Your task to perform on an android device: turn off translation in the chrome app Image 0: 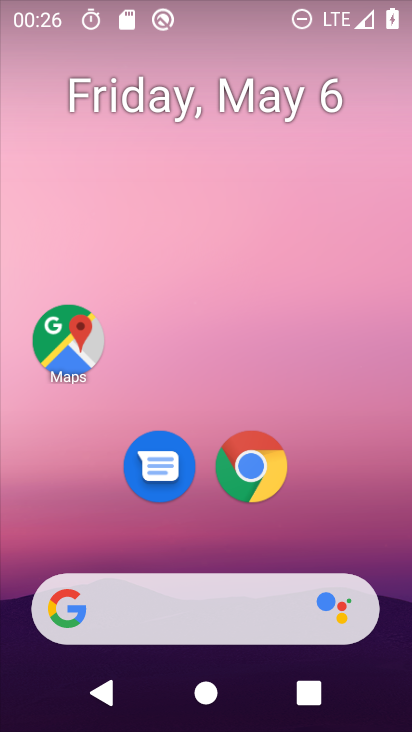
Step 0: click (255, 461)
Your task to perform on an android device: turn off translation in the chrome app Image 1: 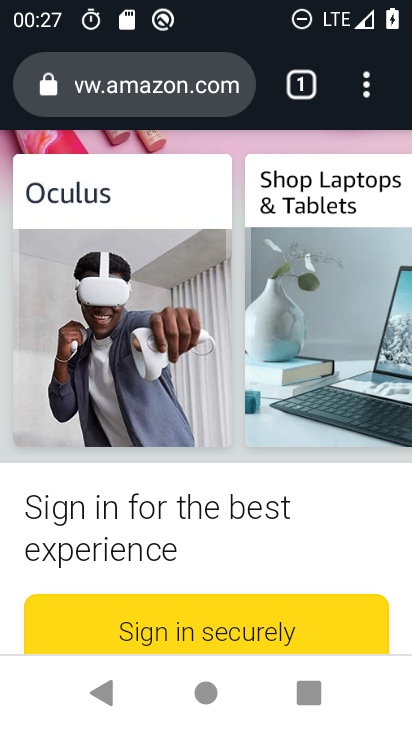
Step 1: click (365, 82)
Your task to perform on an android device: turn off translation in the chrome app Image 2: 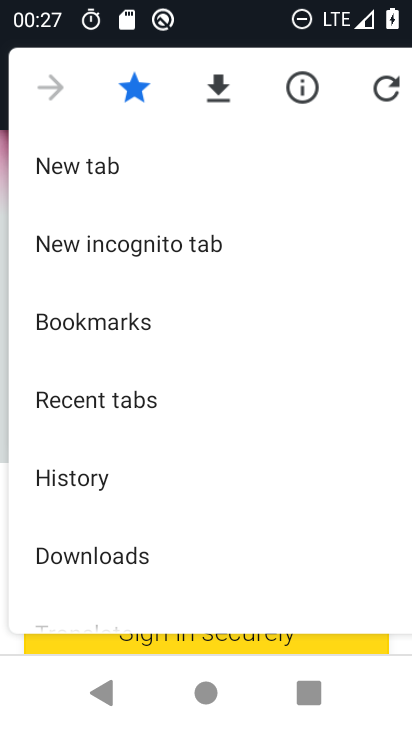
Step 2: drag from (136, 584) to (187, 237)
Your task to perform on an android device: turn off translation in the chrome app Image 3: 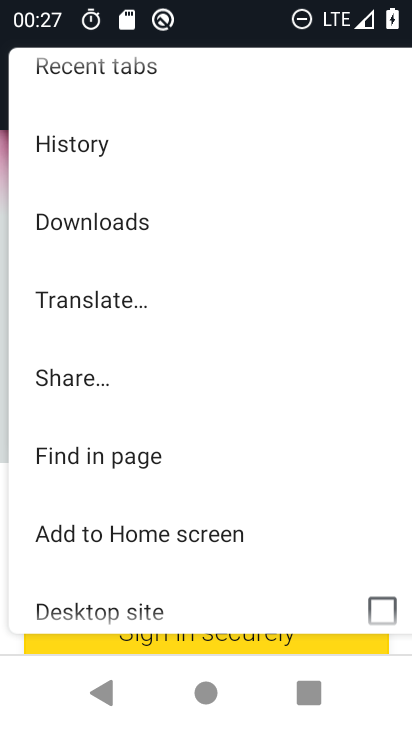
Step 3: drag from (121, 568) to (169, 226)
Your task to perform on an android device: turn off translation in the chrome app Image 4: 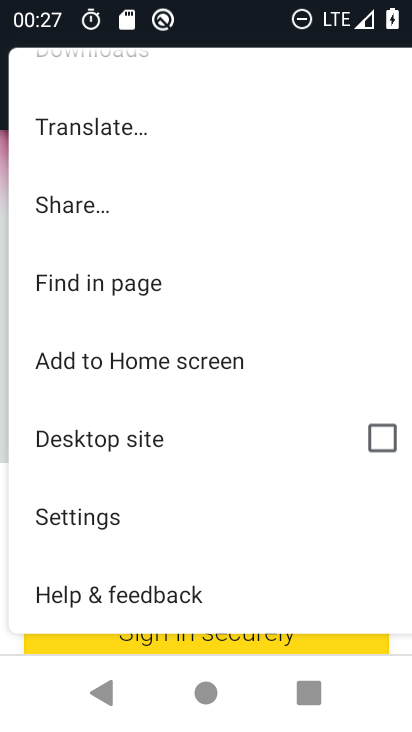
Step 4: click (107, 527)
Your task to perform on an android device: turn off translation in the chrome app Image 5: 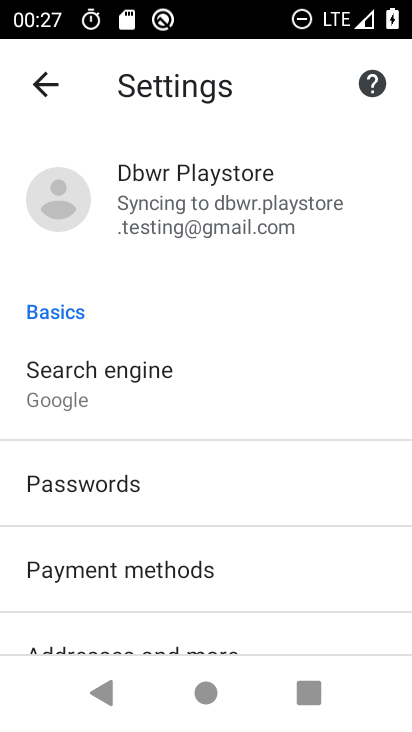
Step 5: drag from (101, 624) to (151, 351)
Your task to perform on an android device: turn off translation in the chrome app Image 6: 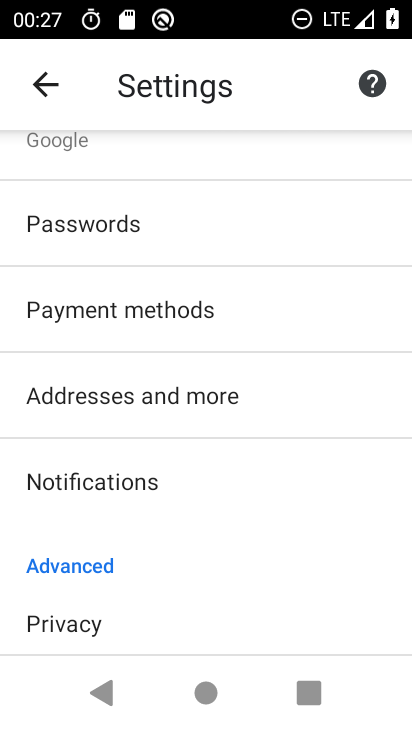
Step 6: drag from (125, 641) to (145, 340)
Your task to perform on an android device: turn off translation in the chrome app Image 7: 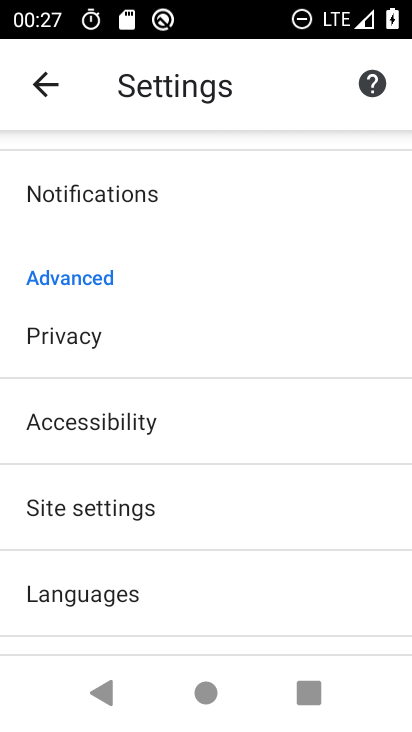
Step 7: click (107, 596)
Your task to perform on an android device: turn off translation in the chrome app Image 8: 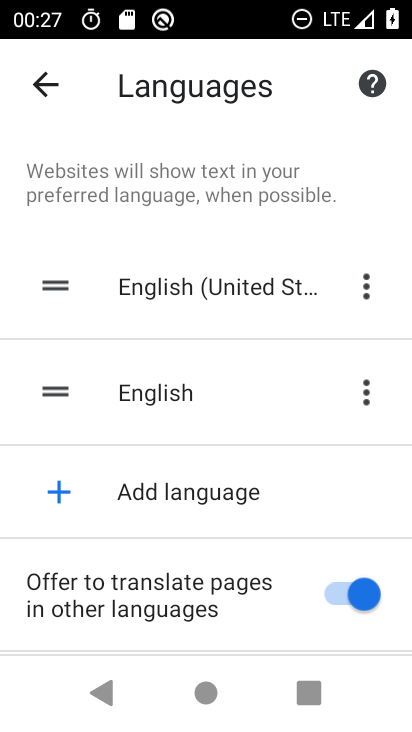
Step 8: click (326, 598)
Your task to perform on an android device: turn off translation in the chrome app Image 9: 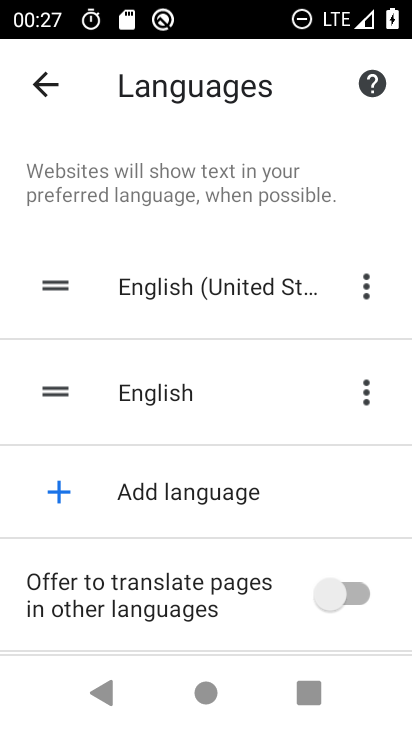
Step 9: task complete